Your task to perform on an android device: set default search engine in the chrome app Image 0: 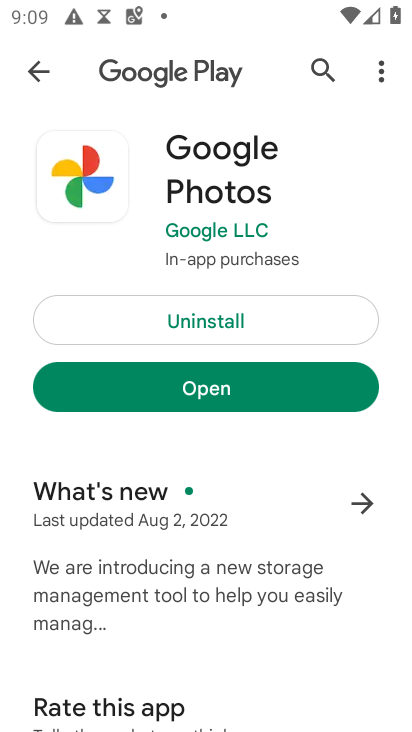
Step 0: press home button
Your task to perform on an android device: set default search engine in the chrome app Image 1: 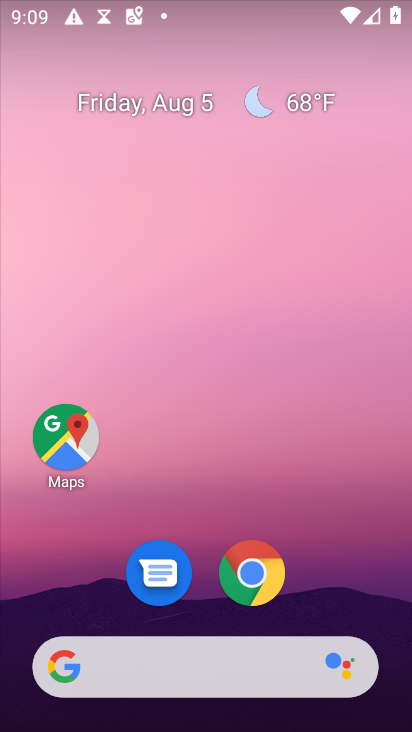
Step 1: click (248, 573)
Your task to perform on an android device: set default search engine in the chrome app Image 2: 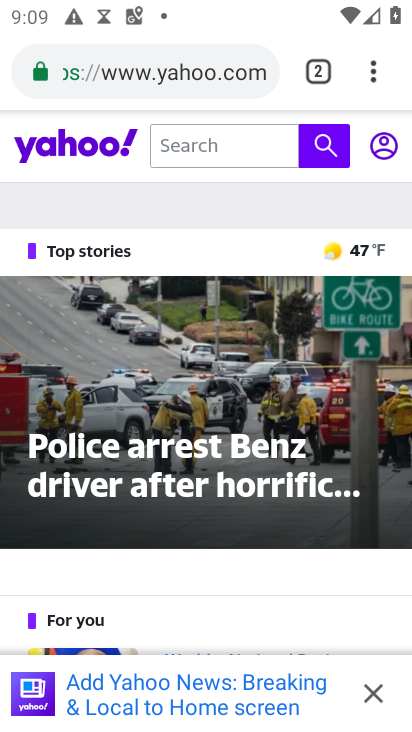
Step 2: click (374, 75)
Your task to perform on an android device: set default search engine in the chrome app Image 3: 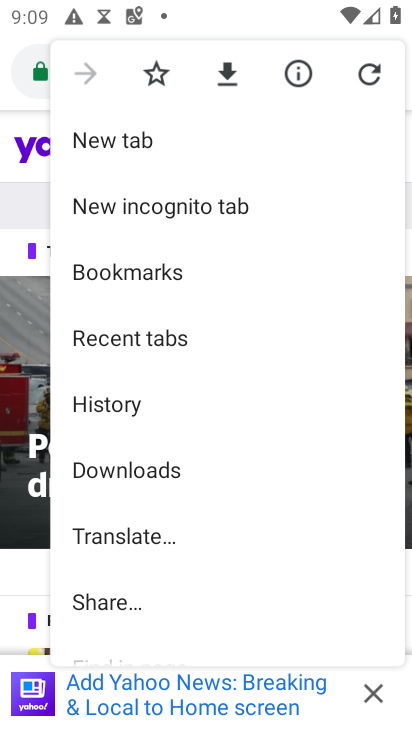
Step 3: drag from (195, 516) to (291, 191)
Your task to perform on an android device: set default search engine in the chrome app Image 4: 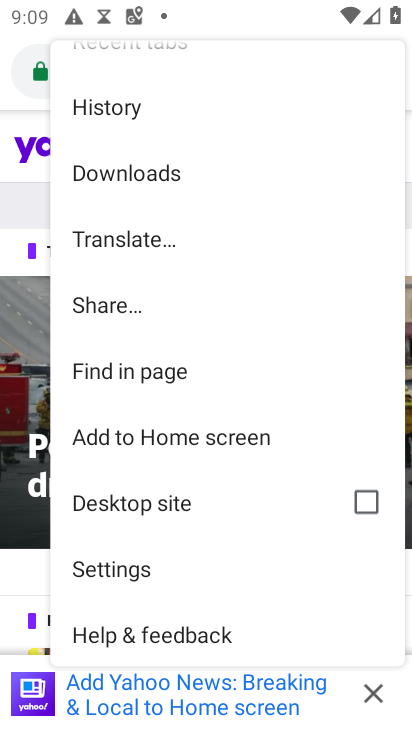
Step 4: click (133, 571)
Your task to perform on an android device: set default search engine in the chrome app Image 5: 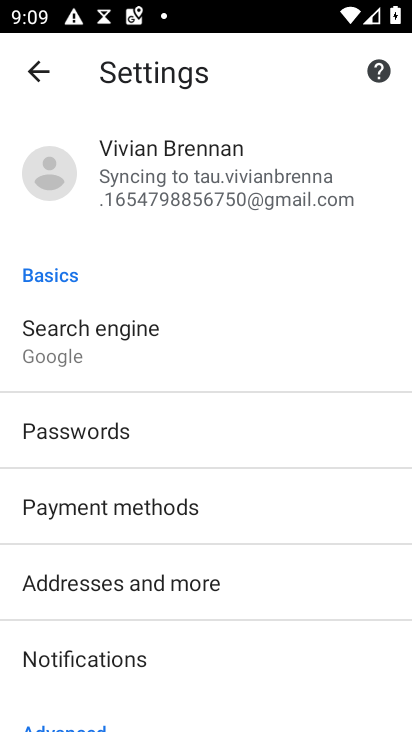
Step 5: click (100, 360)
Your task to perform on an android device: set default search engine in the chrome app Image 6: 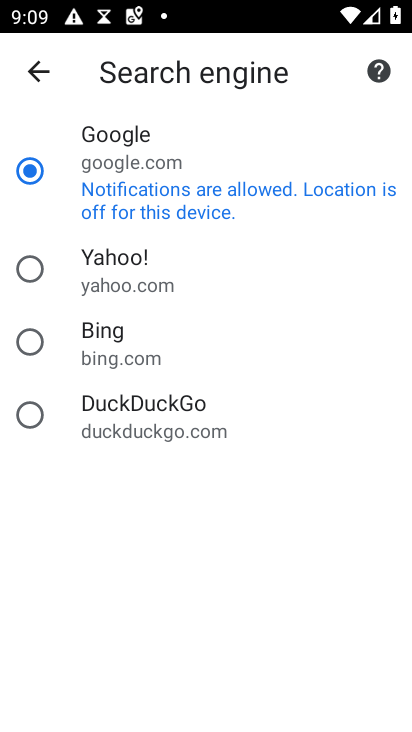
Step 6: click (33, 174)
Your task to perform on an android device: set default search engine in the chrome app Image 7: 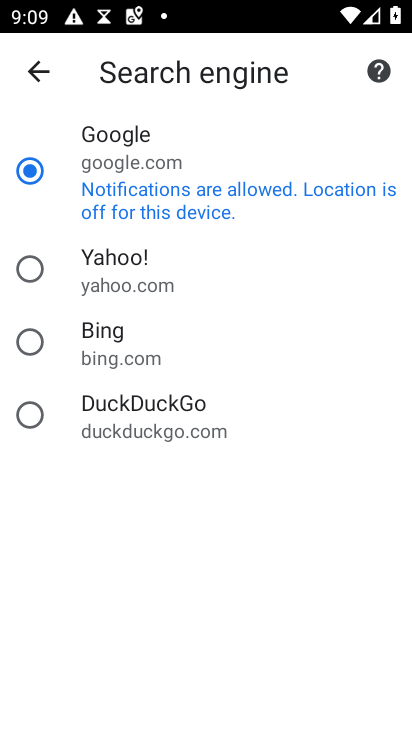
Step 7: task complete